Your task to perform on an android device: change notification settings in the gmail app Image 0: 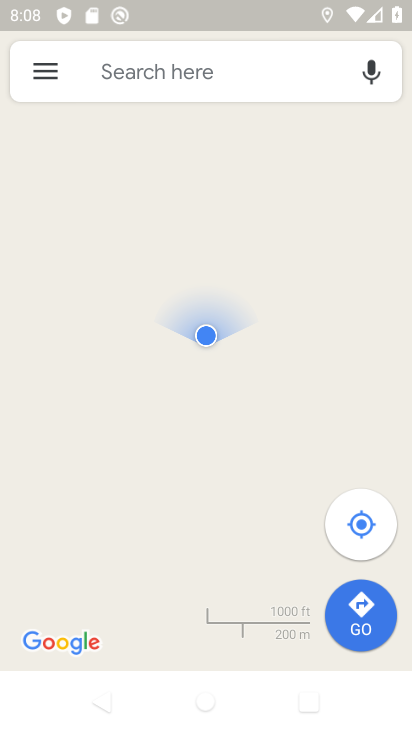
Step 0: press home button
Your task to perform on an android device: change notification settings in the gmail app Image 1: 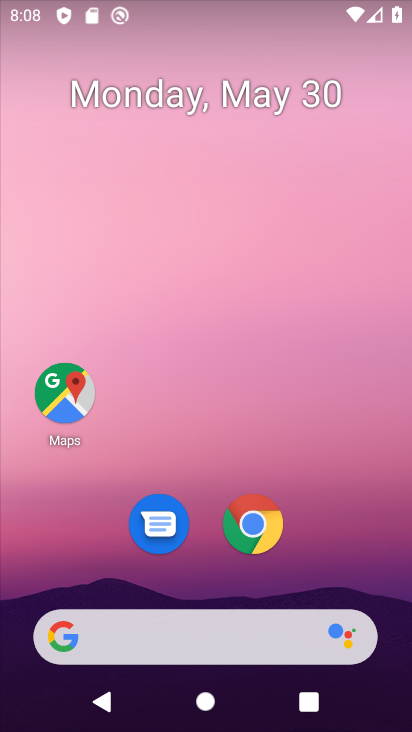
Step 1: drag from (307, 525) to (304, 0)
Your task to perform on an android device: change notification settings in the gmail app Image 2: 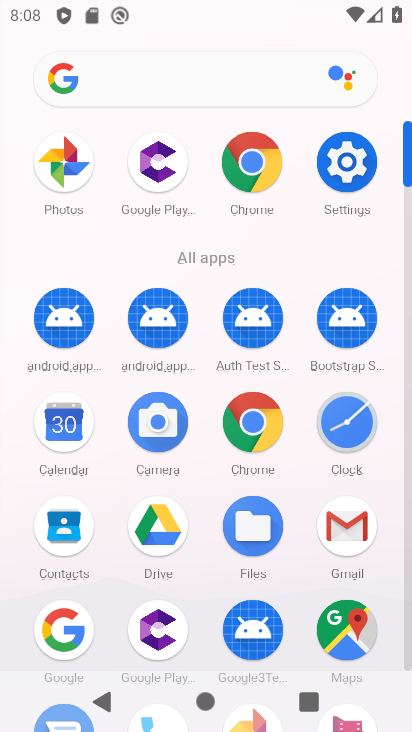
Step 2: click (355, 161)
Your task to perform on an android device: change notification settings in the gmail app Image 3: 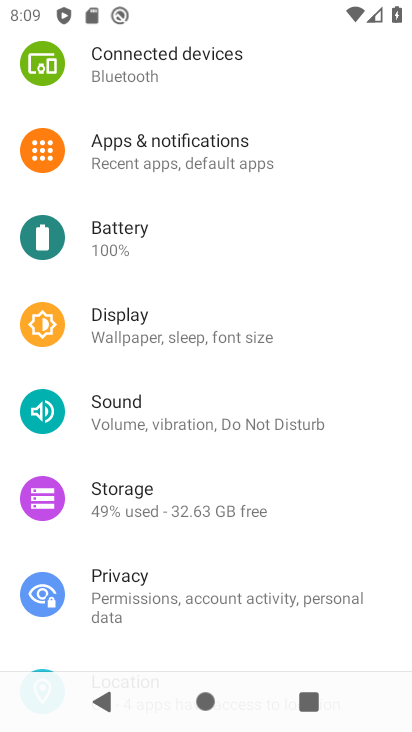
Step 3: click (251, 159)
Your task to perform on an android device: change notification settings in the gmail app Image 4: 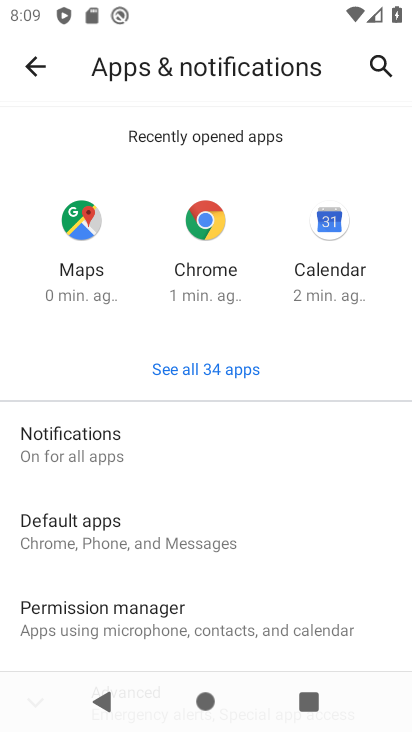
Step 4: click (215, 366)
Your task to perform on an android device: change notification settings in the gmail app Image 5: 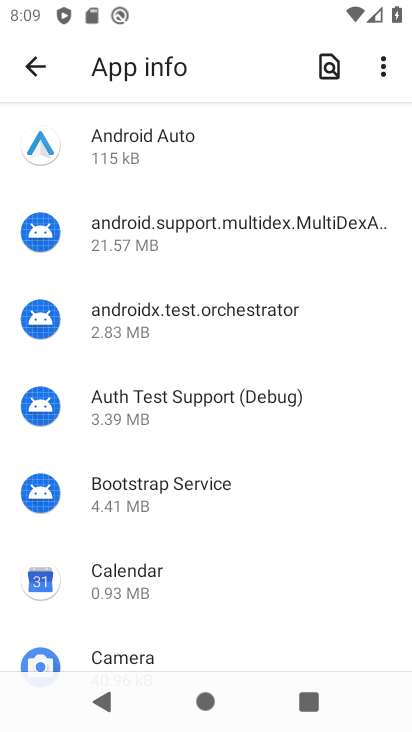
Step 5: drag from (239, 568) to (245, 42)
Your task to perform on an android device: change notification settings in the gmail app Image 6: 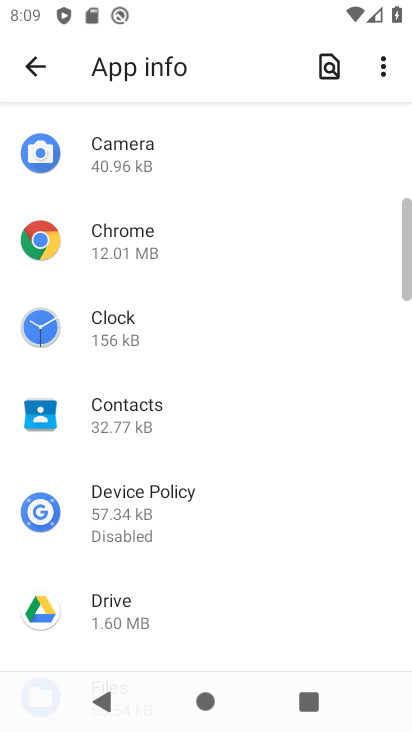
Step 6: drag from (254, 623) to (234, 0)
Your task to perform on an android device: change notification settings in the gmail app Image 7: 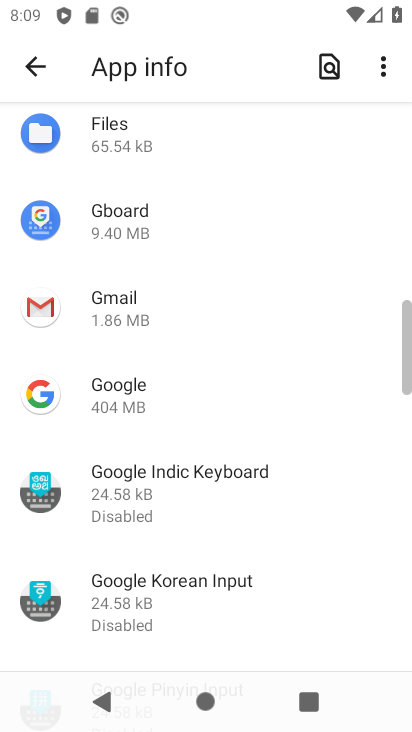
Step 7: drag from (283, 626) to (250, 0)
Your task to perform on an android device: change notification settings in the gmail app Image 8: 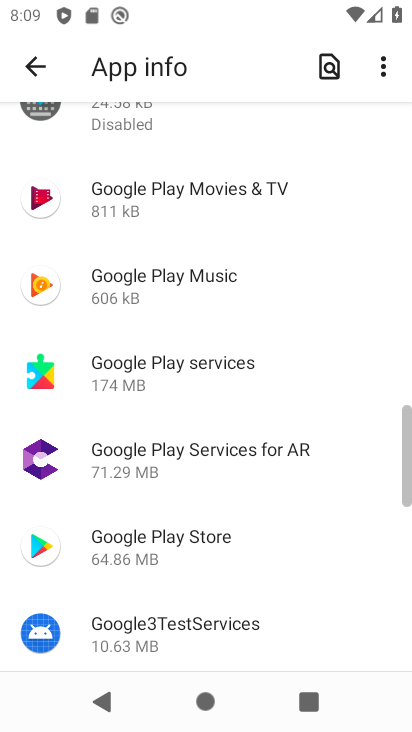
Step 8: drag from (296, 508) to (281, 71)
Your task to perform on an android device: change notification settings in the gmail app Image 9: 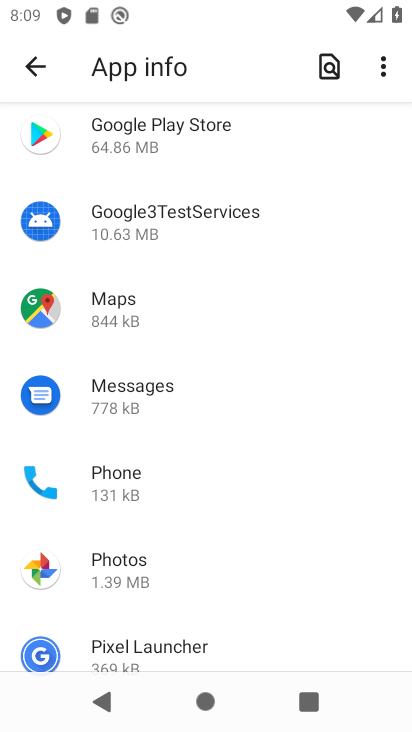
Step 9: drag from (244, 518) to (245, 34)
Your task to perform on an android device: change notification settings in the gmail app Image 10: 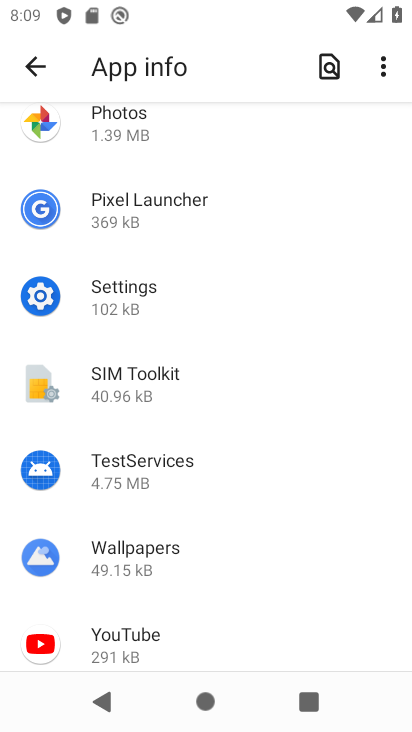
Step 10: drag from (250, 542) to (229, 211)
Your task to perform on an android device: change notification settings in the gmail app Image 11: 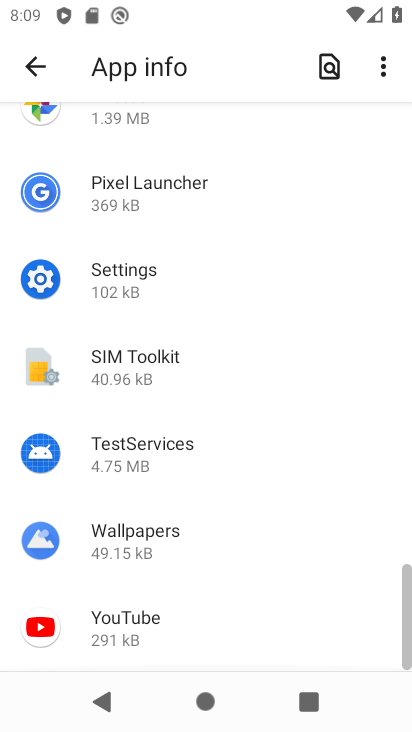
Step 11: drag from (225, 237) to (257, 716)
Your task to perform on an android device: change notification settings in the gmail app Image 12: 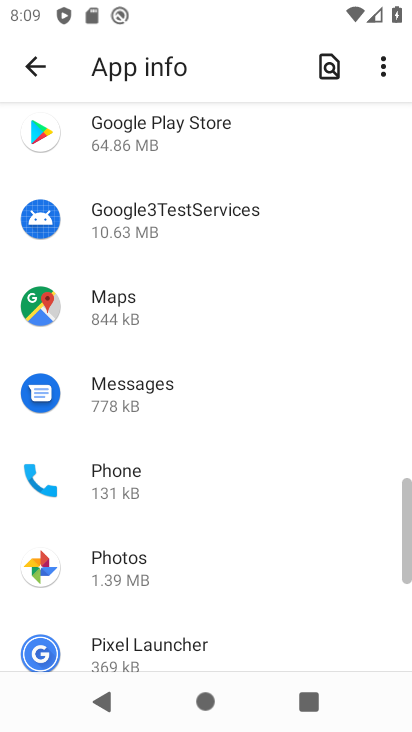
Step 12: drag from (220, 287) to (204, 709)
Your task to perform on an android device: change notification settings in the gmail app Image 13: 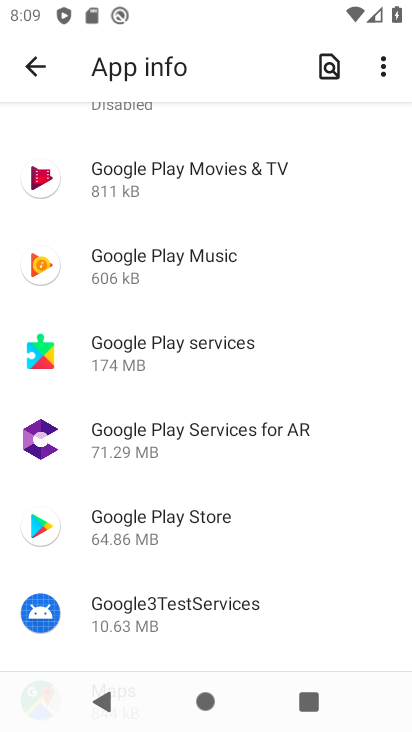
Step 13: drag from (232, 213) to (262, 691)
Your task to perform on an android device: change notification settings in the gmail app Image 14: 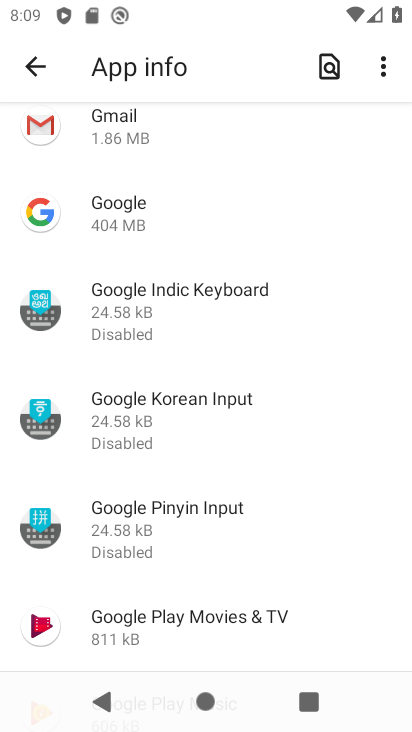
Step 14: click (160, 128)
Your task to perform on an android device: change notification settings in the gmail app Image 15: 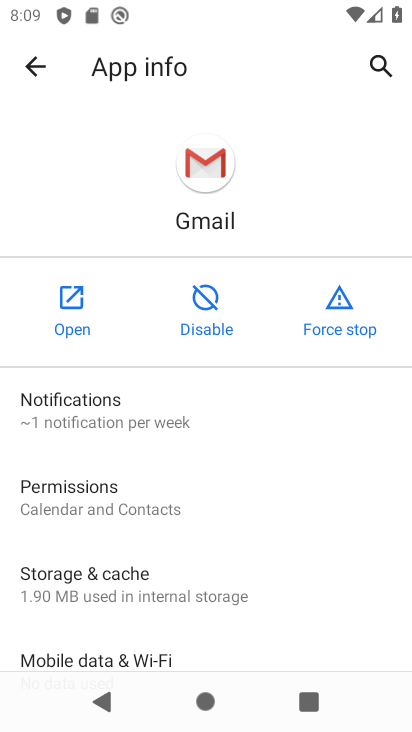
Step 15: click (122, 401)
Your task to perform on an android device: change notification settings in the gmail app Image 16: 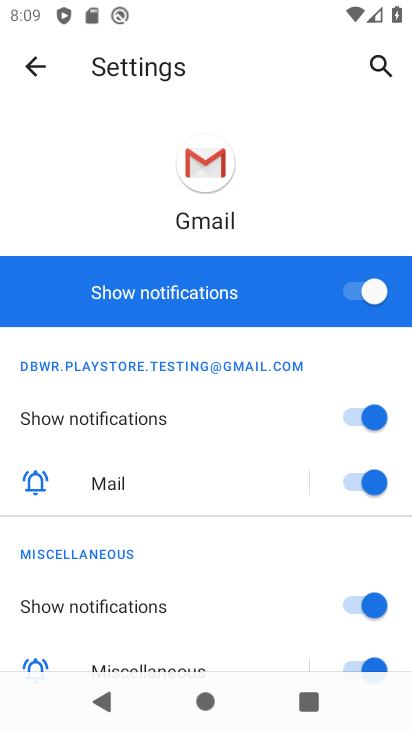
Step 16: click (357, 293)
Your task to perform on an android device: change notification settings in the gmail app Image 17: 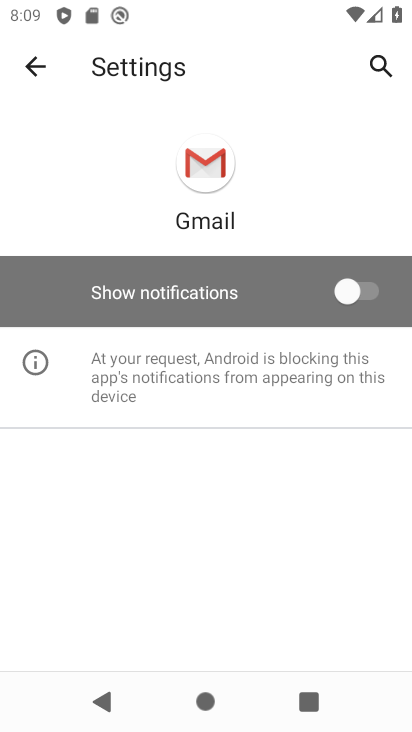
Step 17: task complete